Your task to perform on an android device: What's the weather? Image 0: 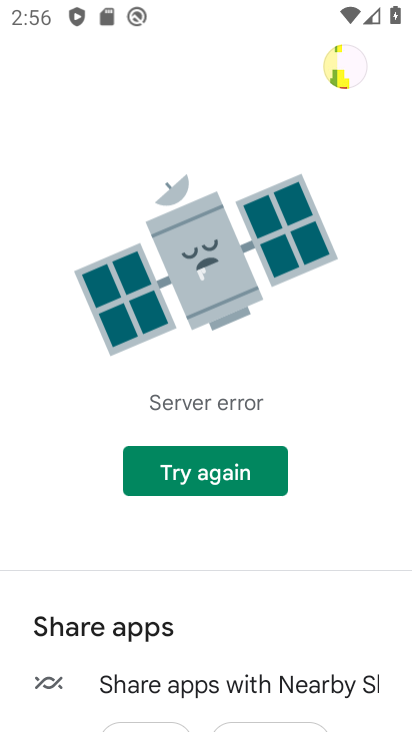
Step 0: press home button
Your task to perform on an android device: What's the weather? Image 1: 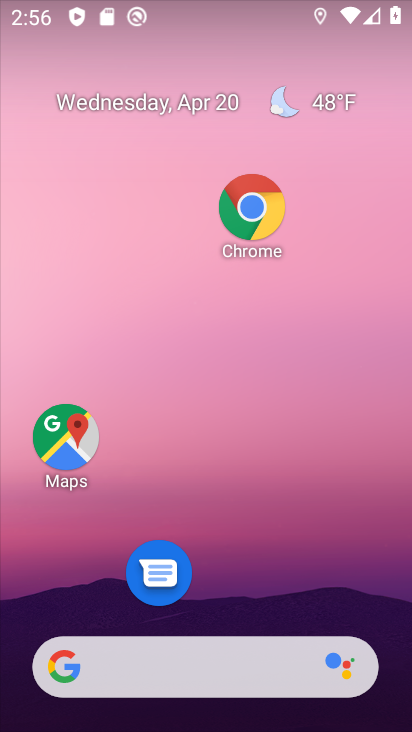
Step 1: drag from (263, 507) to (294, 84)
Your task to perform on an android device: What's the weather? Image 2: 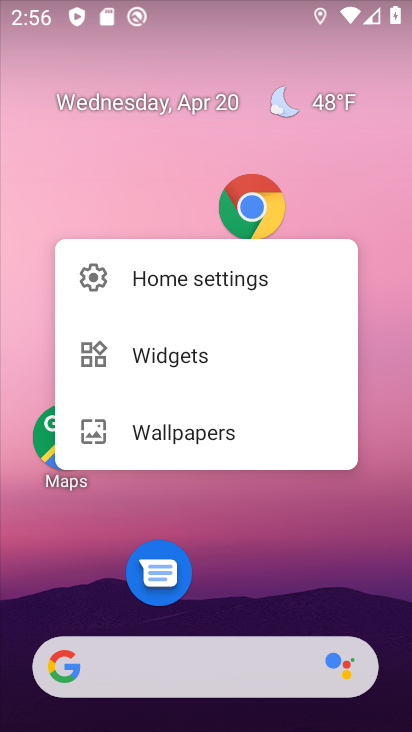
Step 2: click (328, 568)
Your task to perform on an android device: What's the weather? Image 3: 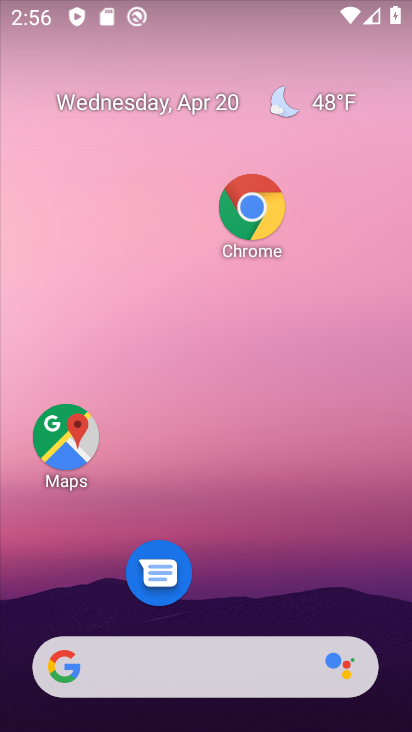
Step 3: drag from (283, 589) to (374, 0)
Your task to perform on an android device: What's the weather? Image 4: 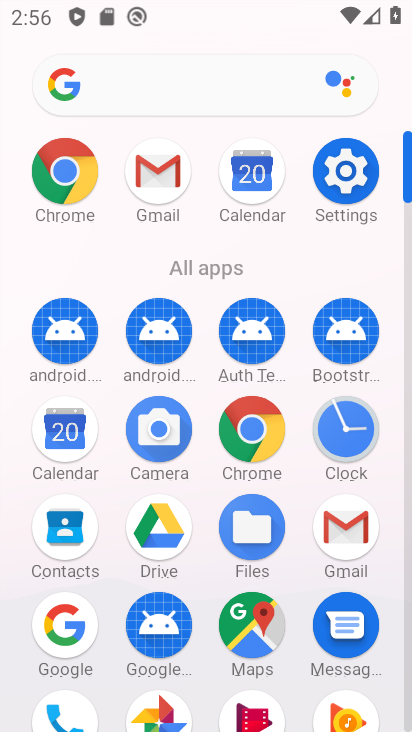
Step 4: click (84, 629)
Your task to perform on an android device: What's the weather? Image 5: 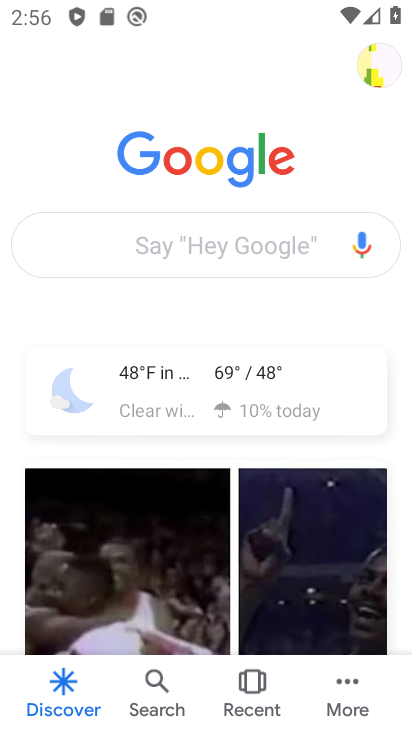
Step 5: click (229, 237)
Your task to perform on an android device: What's the weather? Image 6: 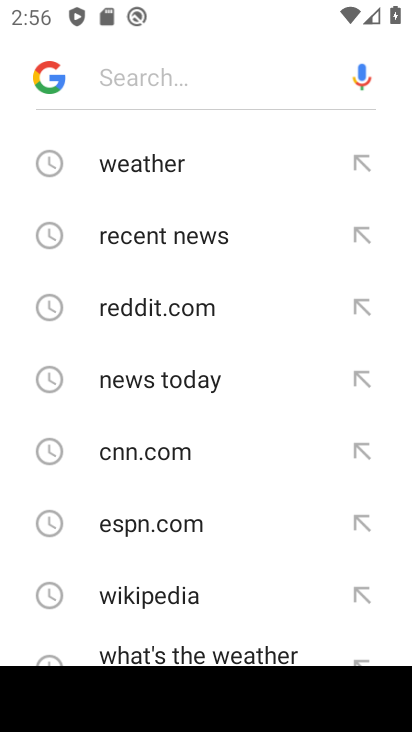
Step 6: click (233, 148)
Your task to perform on an android device: What's the weather? Image 7: 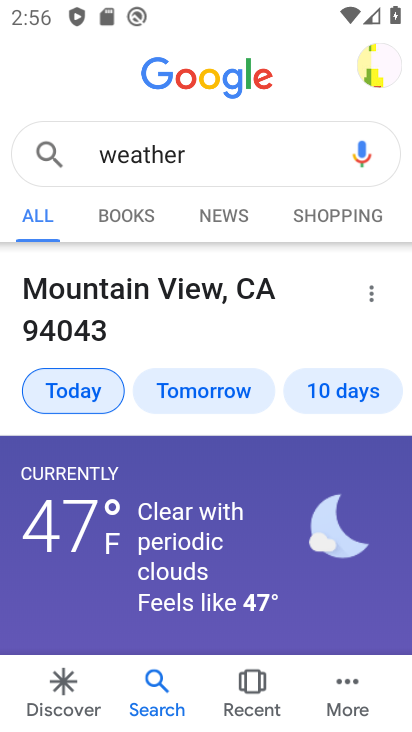
Step 7: task complete